Your task to perform on an android device: check google app version Image 0: 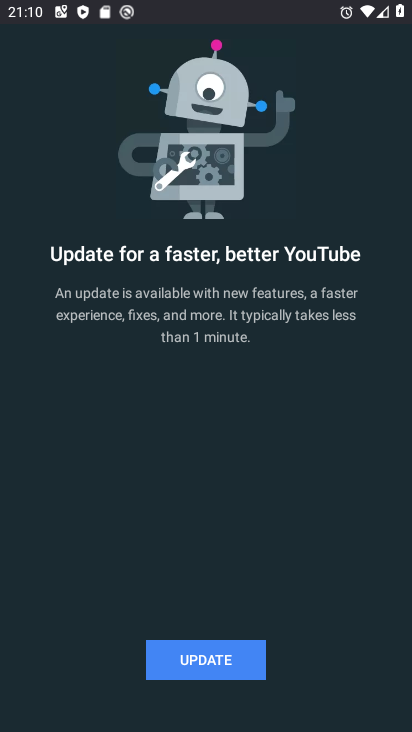
Step 0: press home button
Your task to perform on an android device: check google app version Image 1: 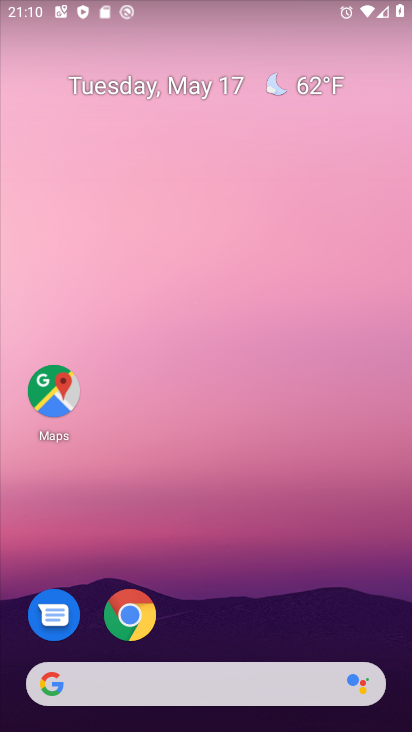
Step 1: drag from (228, 620) to (315, 74)
Your task to perform on an android device: check google app version Image 2: 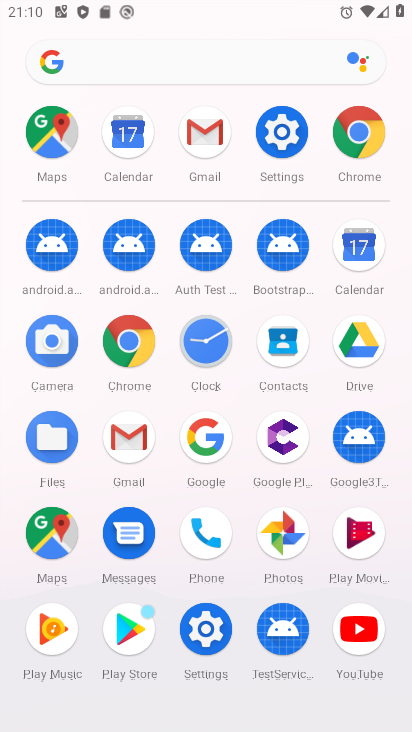
Step 2: click (195, 436)
Your task to perform on an android device: check google app version Image 3: 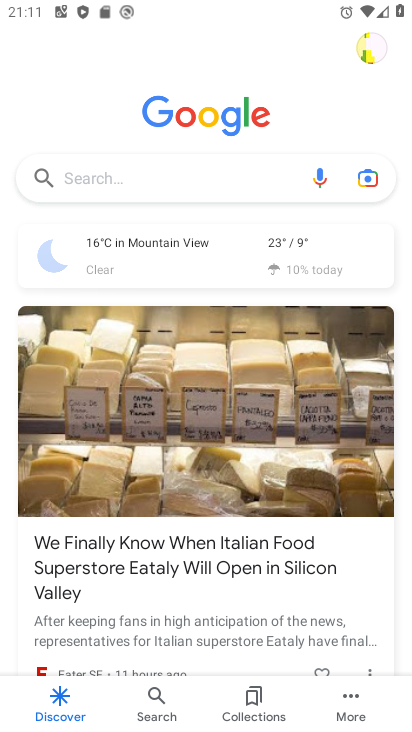
Step 3: press home button
Your task to perform on an android device: check google app version Image 4: 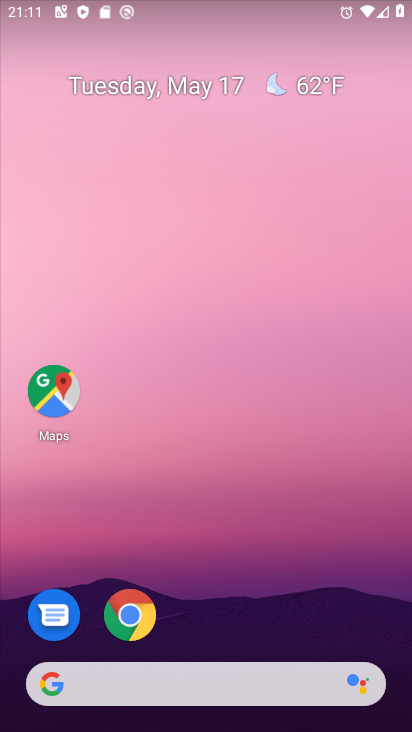
Step 4: drag from (244, 628) to (278, 112)
Your task to perform on an android device: check google app version Image 5: 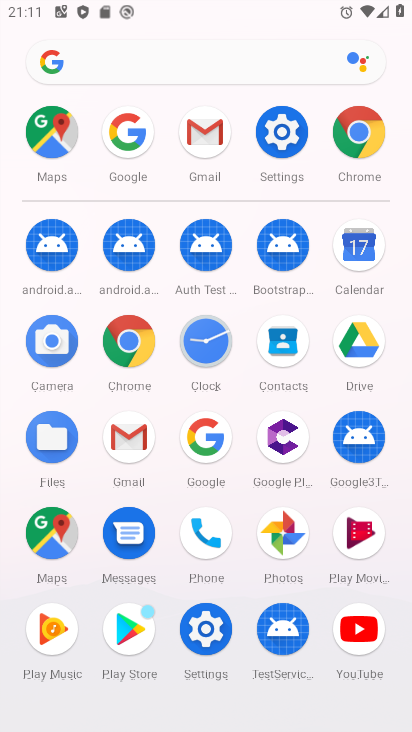
Step 5: click (191, 443)
Your task to perform on an android device: check google app version Image 6: 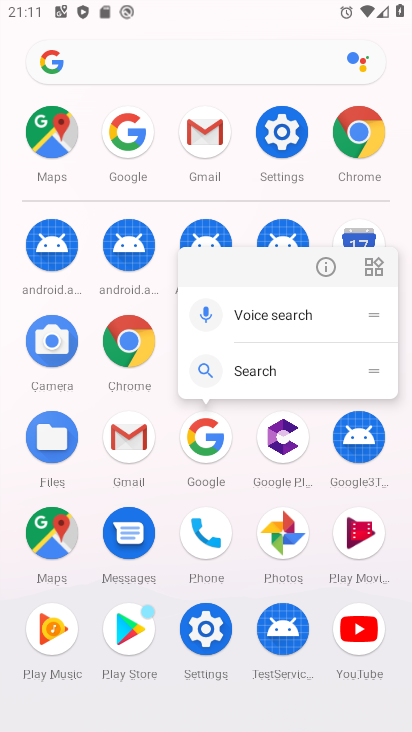
Step 6: click (321, 273)
Your task to perform on an android device: check google app version Image 7: 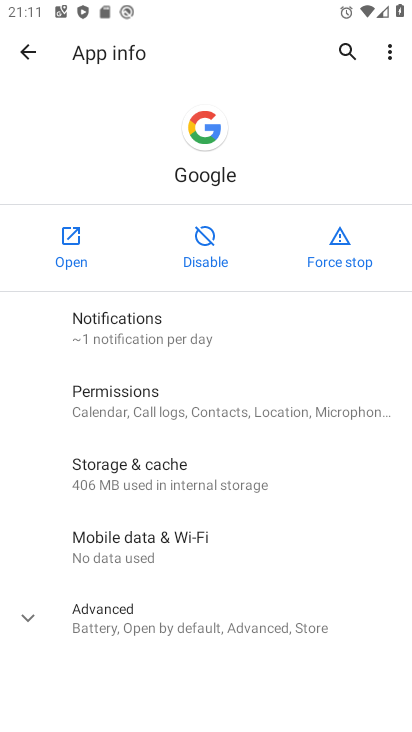
Step 7: click (211, 619)
Your task to perform on an android device: check google app version Image 8: 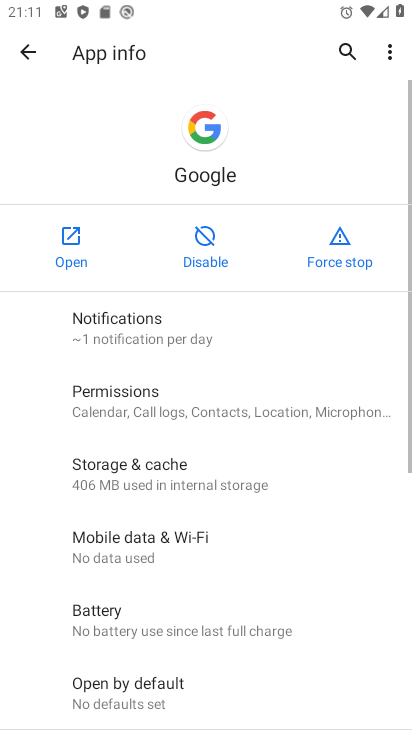
Step 8: task complete